Your task to perform on an android device: turn on translation in the chrome app Image 0: 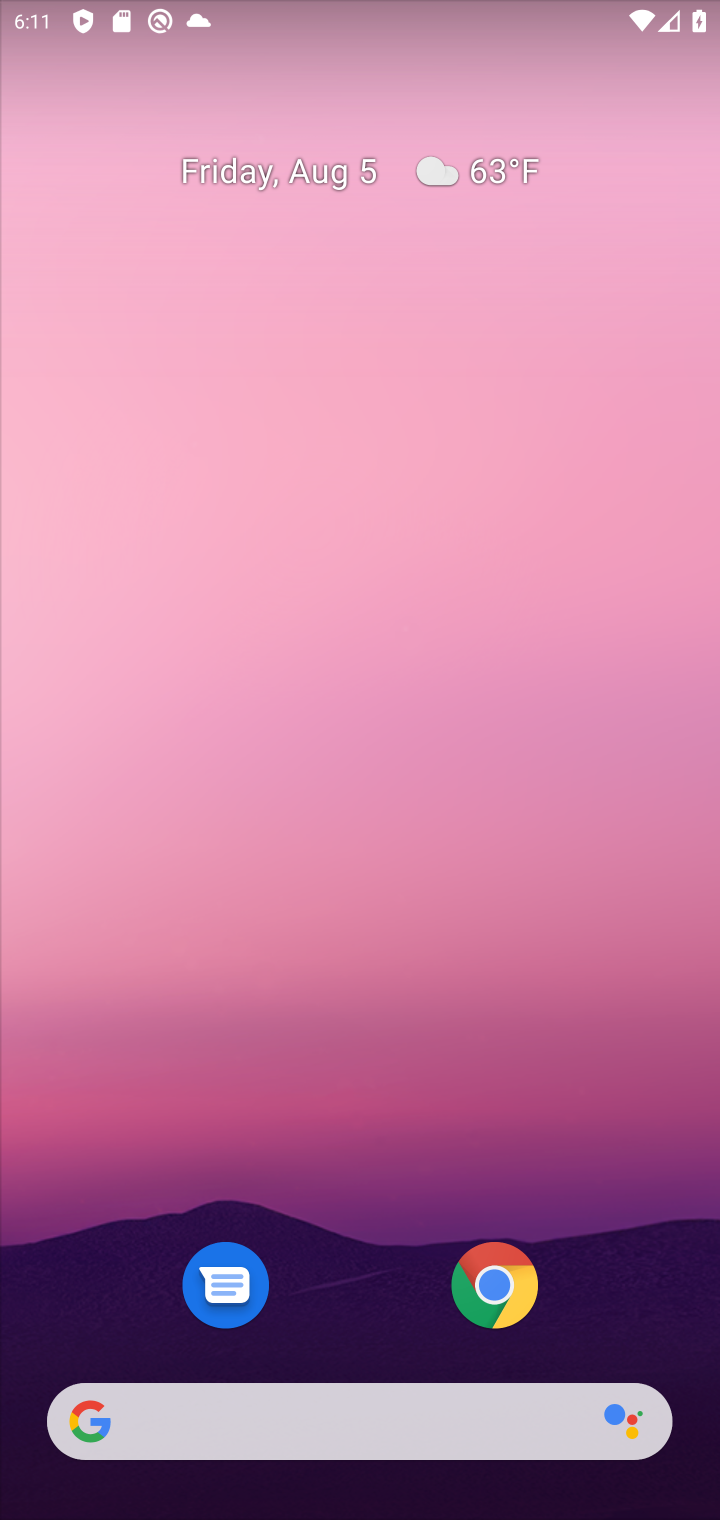
Step 0: click (488, 1292)
Your task to perform on an android device: turn on translation in the chrome app Image 1: 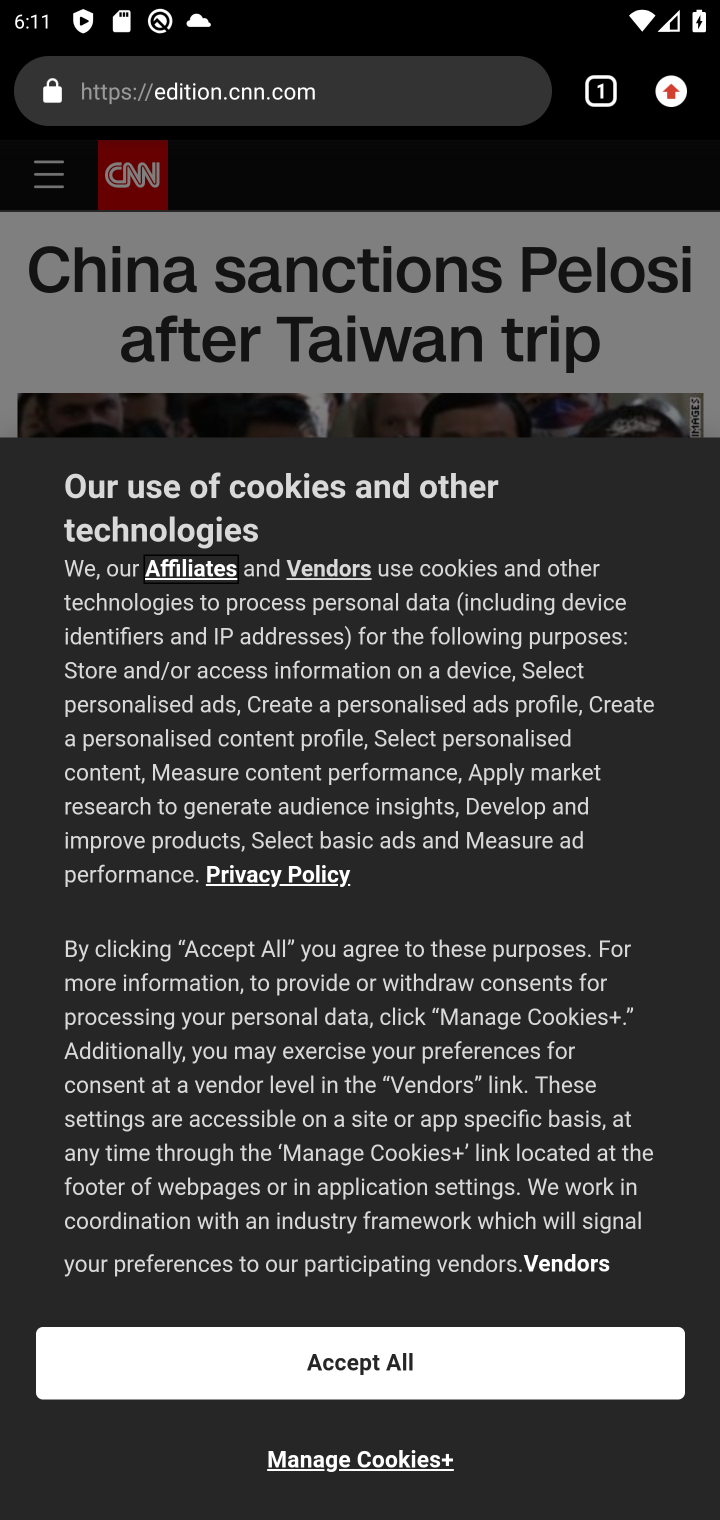
Step 1: click (674, 109)
Your task to perform on an android device: turn on translation in the chrome app Image 2: 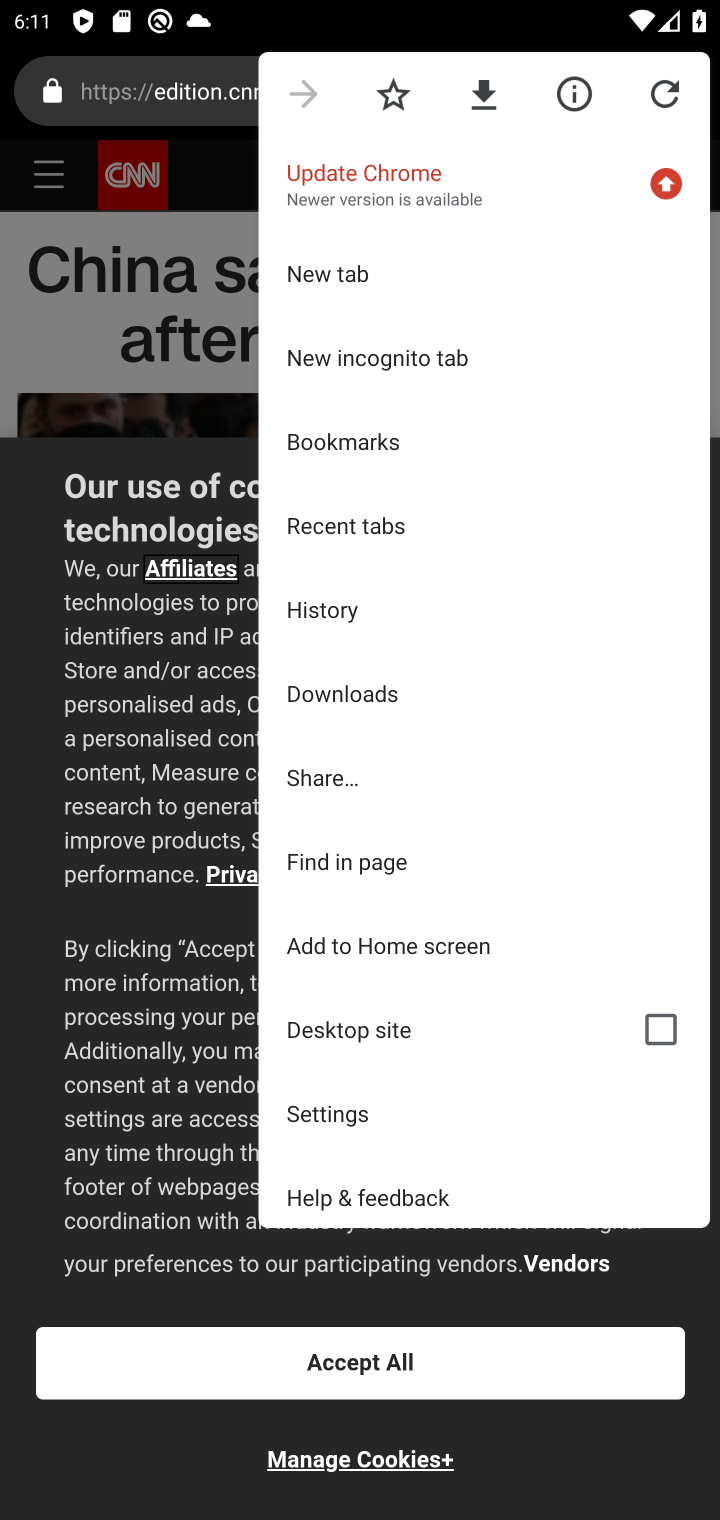
Step 2: click (378, 1116)
Your task to perform on an android device: turn on translation in the chrome app Image 3: 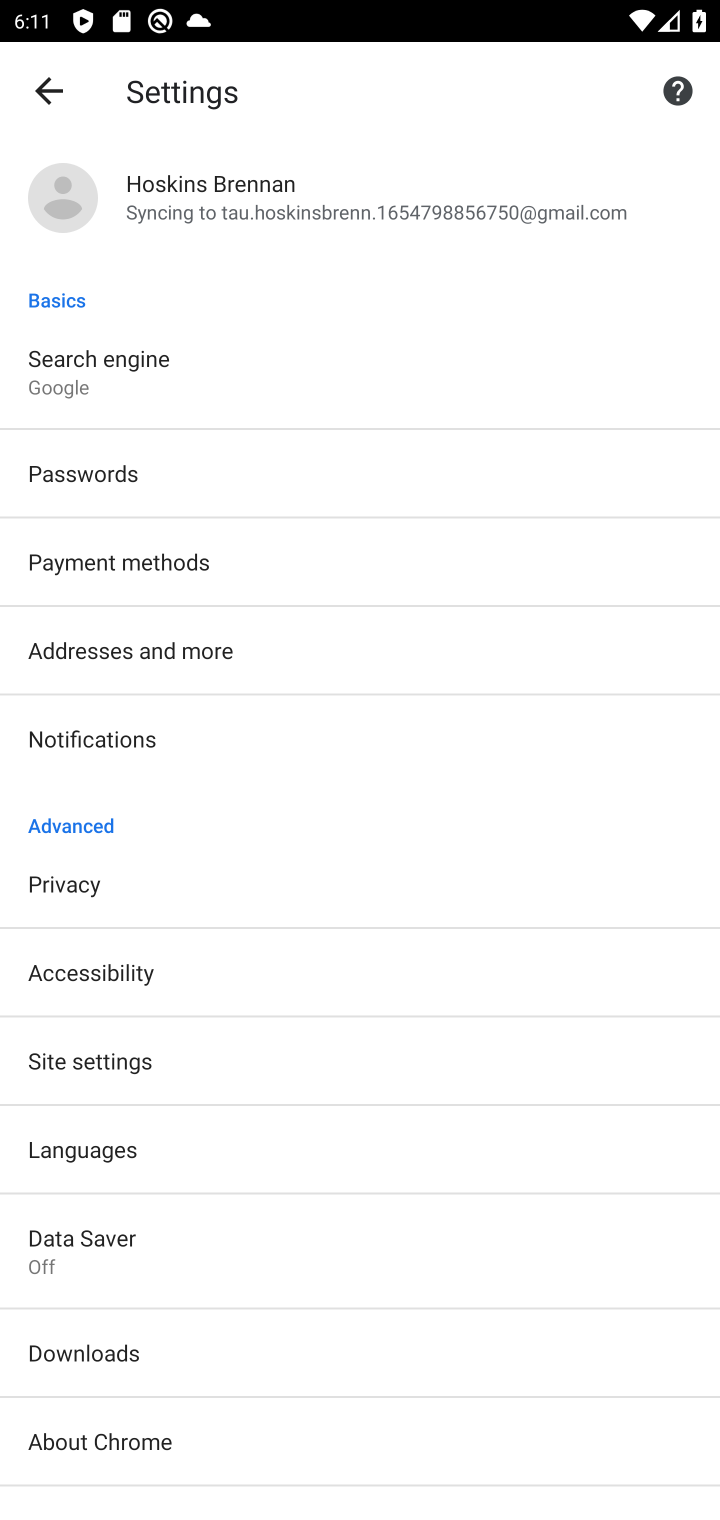
Step 3: click (142, 1173)
Your task to perform on an android device: turn on translation in the chrome app Image 4: 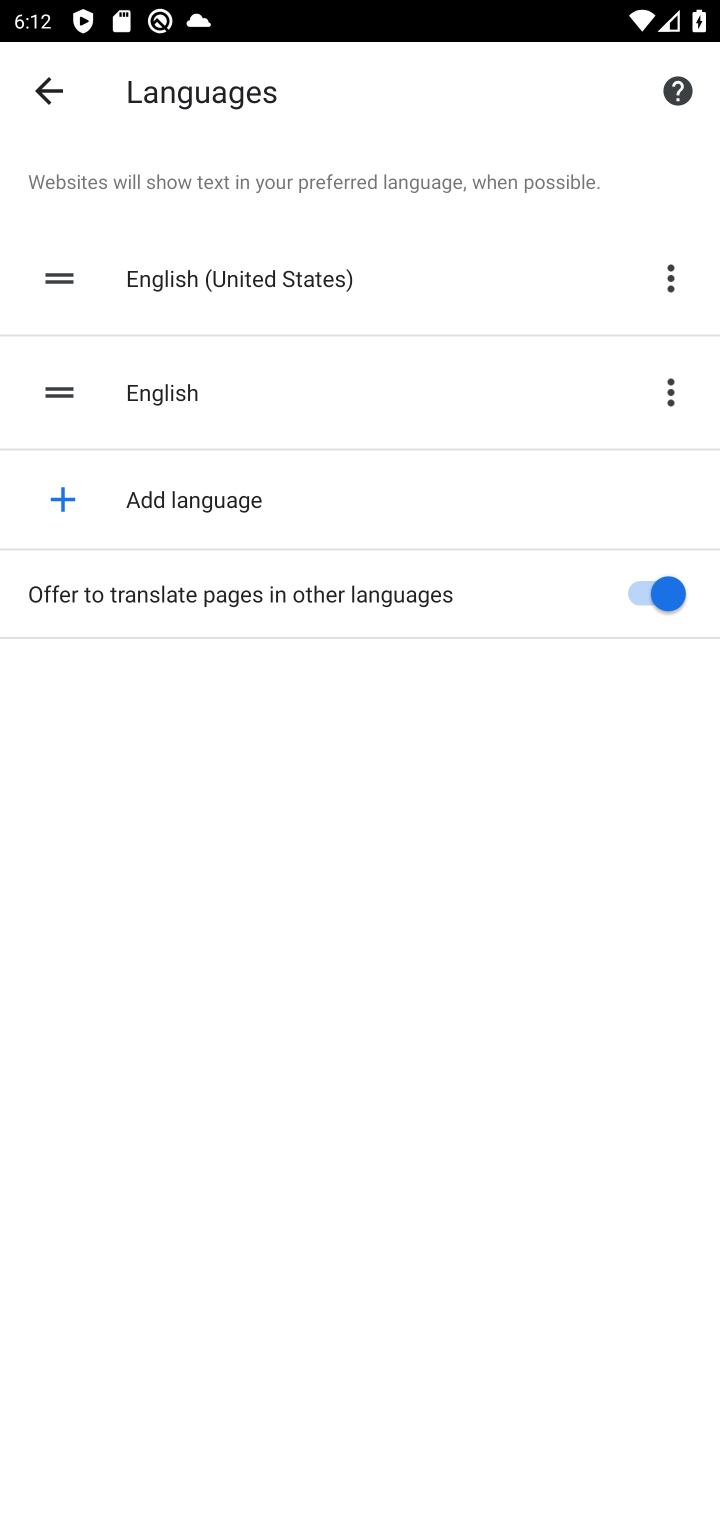
Step 4: task complete